Your task to perform on an android device: open wifi settings Image 0: 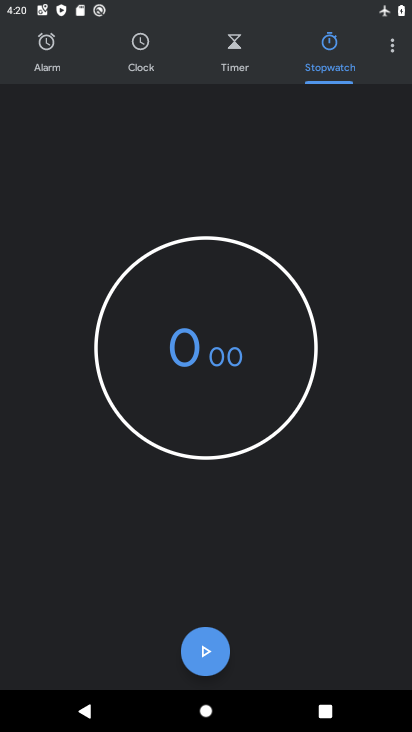
Step 0: drag from (129, 15) to (35, 703)
Your task to perform on an android device: open wifi settings Image 1: 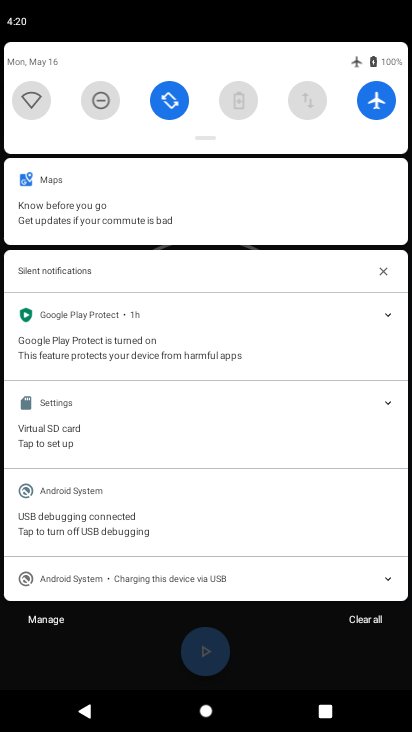
Step 1: click (37, 102)
Your task to perform on an android device: open wifi settings Image 2: 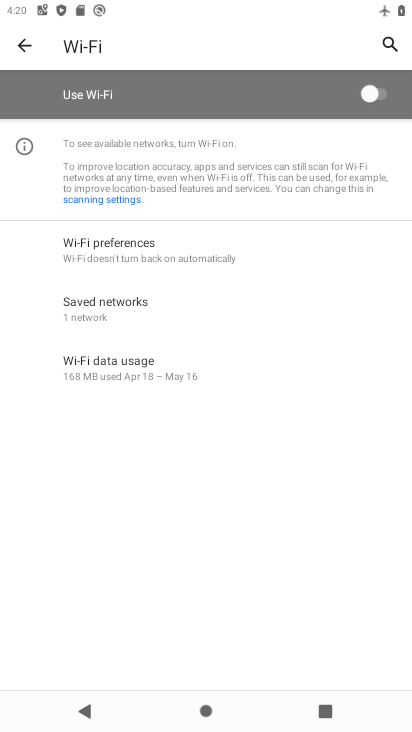
Step 2: task complete